Your task to perform on an android device: change notifications settings Image 0: 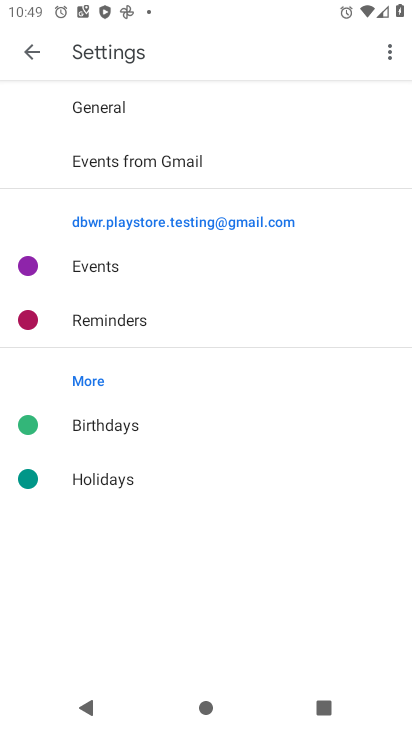
Step 0: press home button
Your task to perform on an android device: change notifications settings Image 1: 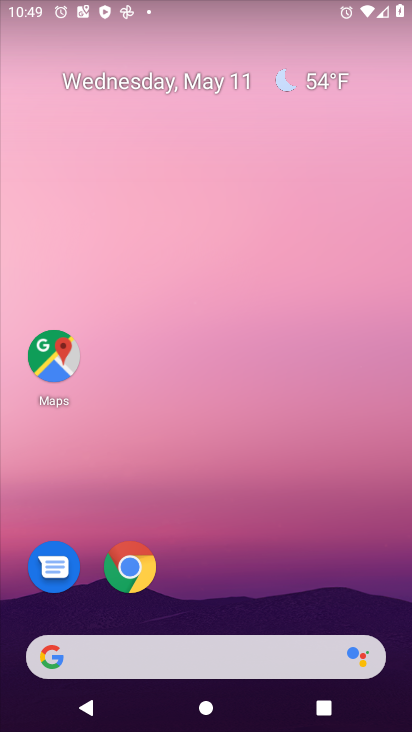
Step 1: drag from (212, 569) to (188, 7)
Your task to perform on an android device: change notifications settings Image 2: 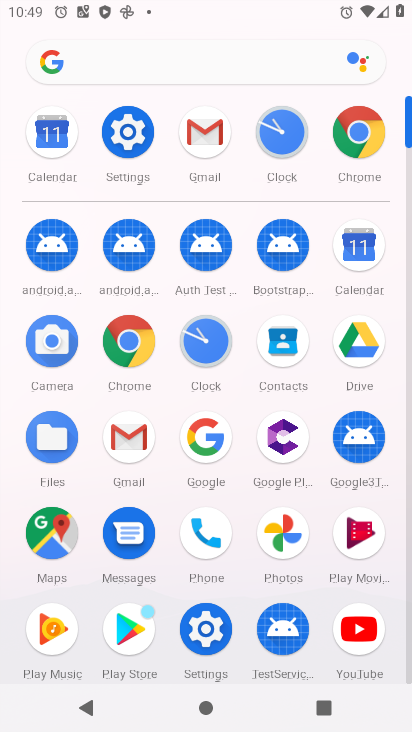
Step 2: click (214, 643)
Your task to perform on an android device: change notifications settings Image 3: 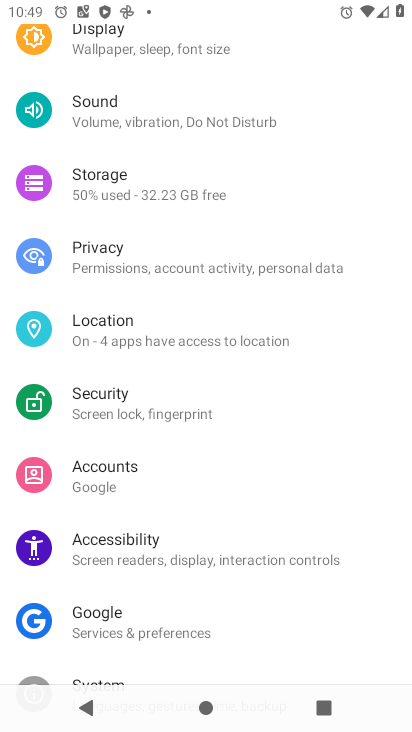
Step 3: drag from (203, 262) to (209, 611)
Your task to perform on an android device: change notifications settings Image 4: 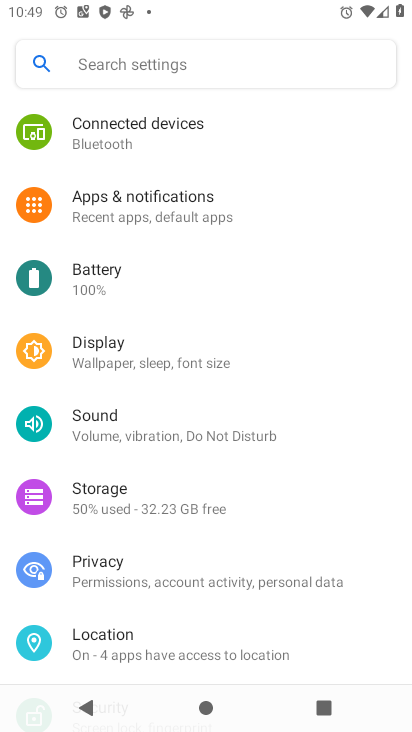
Step 4: click (177, 190)
Your task to perform on an android device: change notifications settings Image 5: 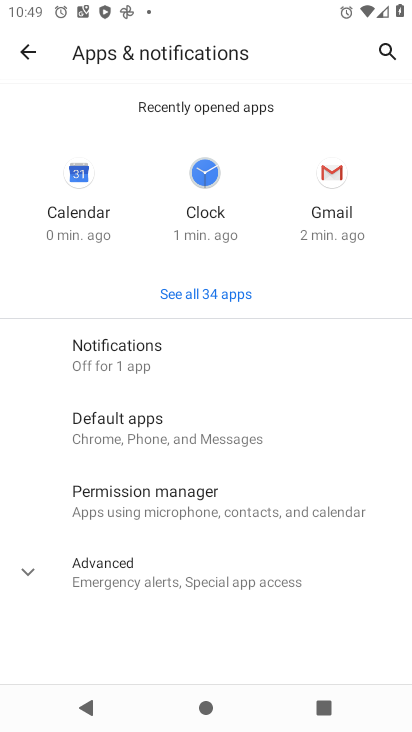
Step 5: click (135, 365)
Your task to perform on an android device: change notifications settings Image 6: 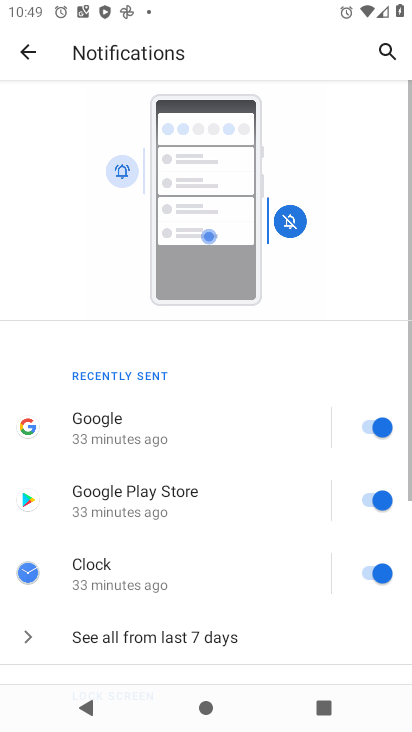
Step 6: task complete